Your task to perform on an android device: Search for "dell xps" on target.com, select the first entry, and add it to the cart. Image 0: 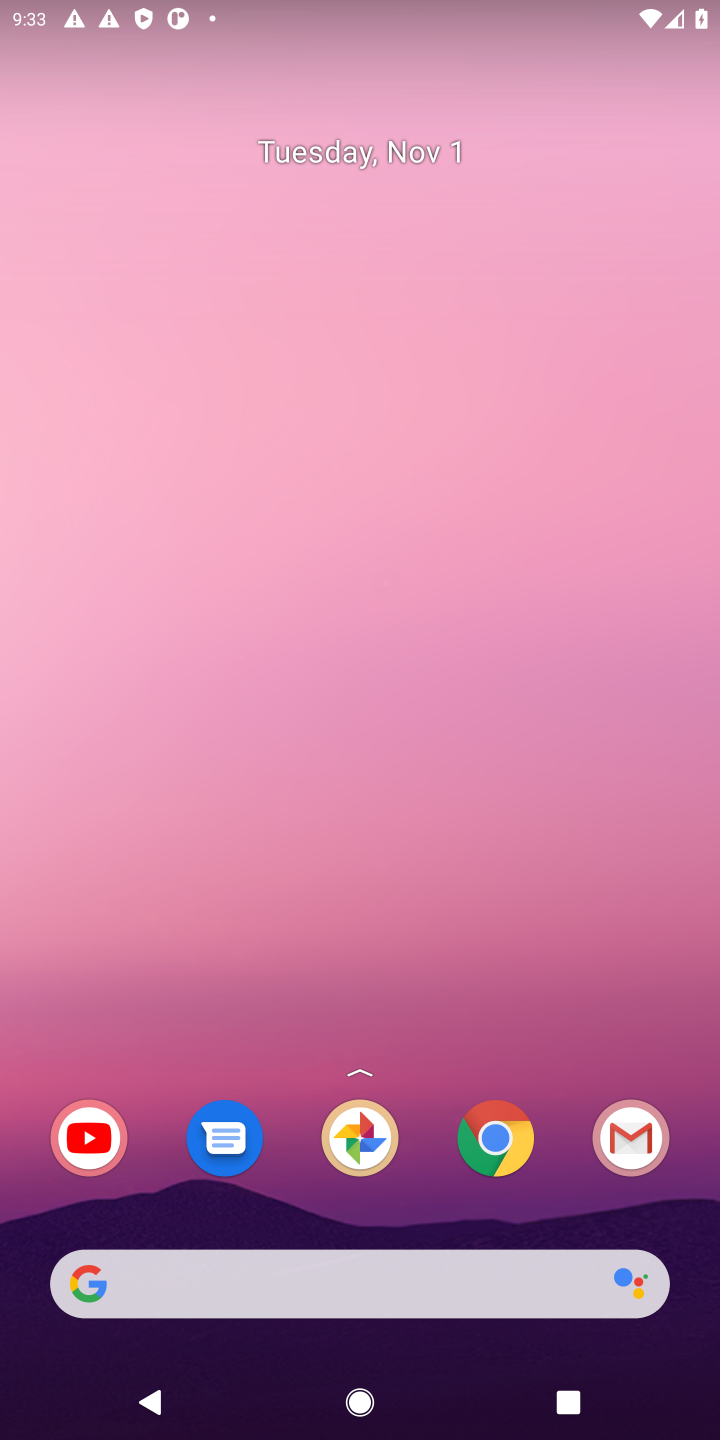
Step 0: click (484, 1133)
Your task to perform on an android device: Search for "dell xps" on target.com, select the first entry, and add it to the cart. Image 1: 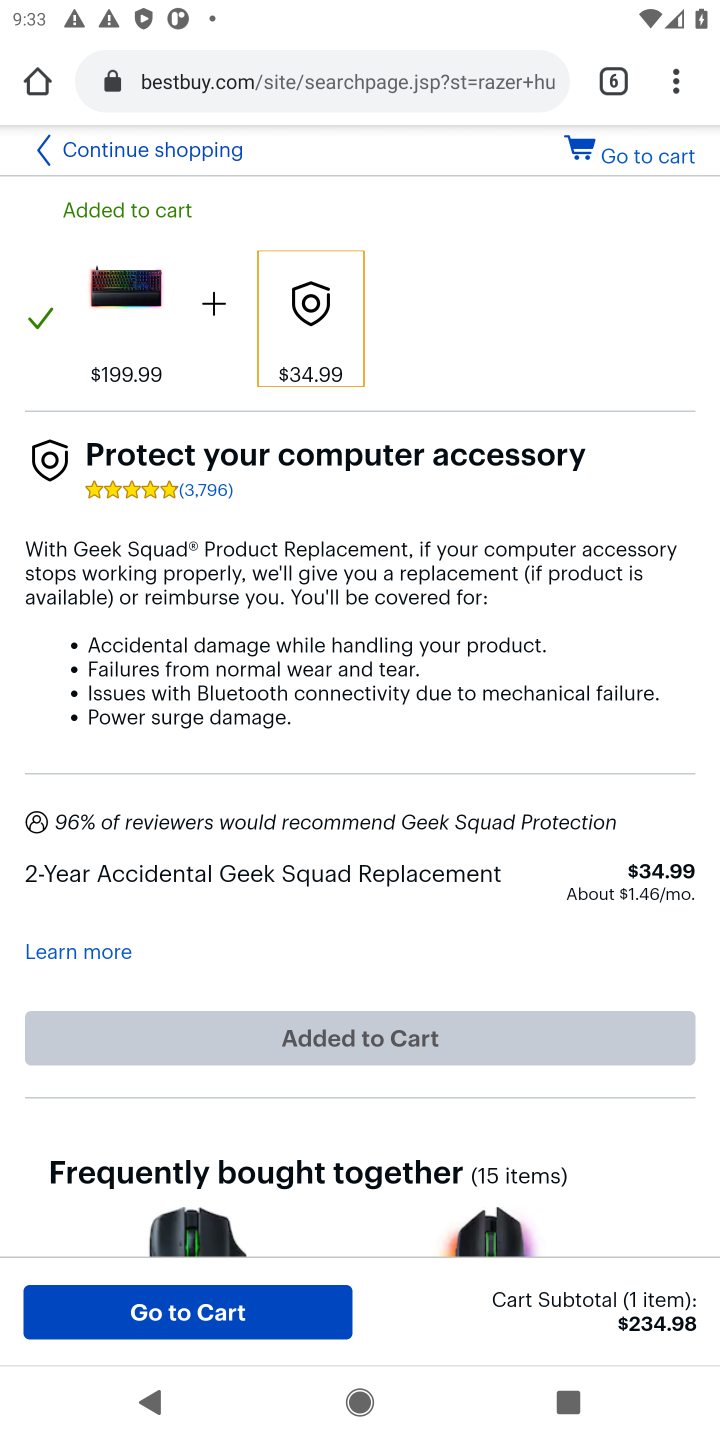
Step 1: click (676, 92)
Your task to perform on an android device: Search for "dell xps" on target.com, select the first entry, and add it to the cart. Image 2: 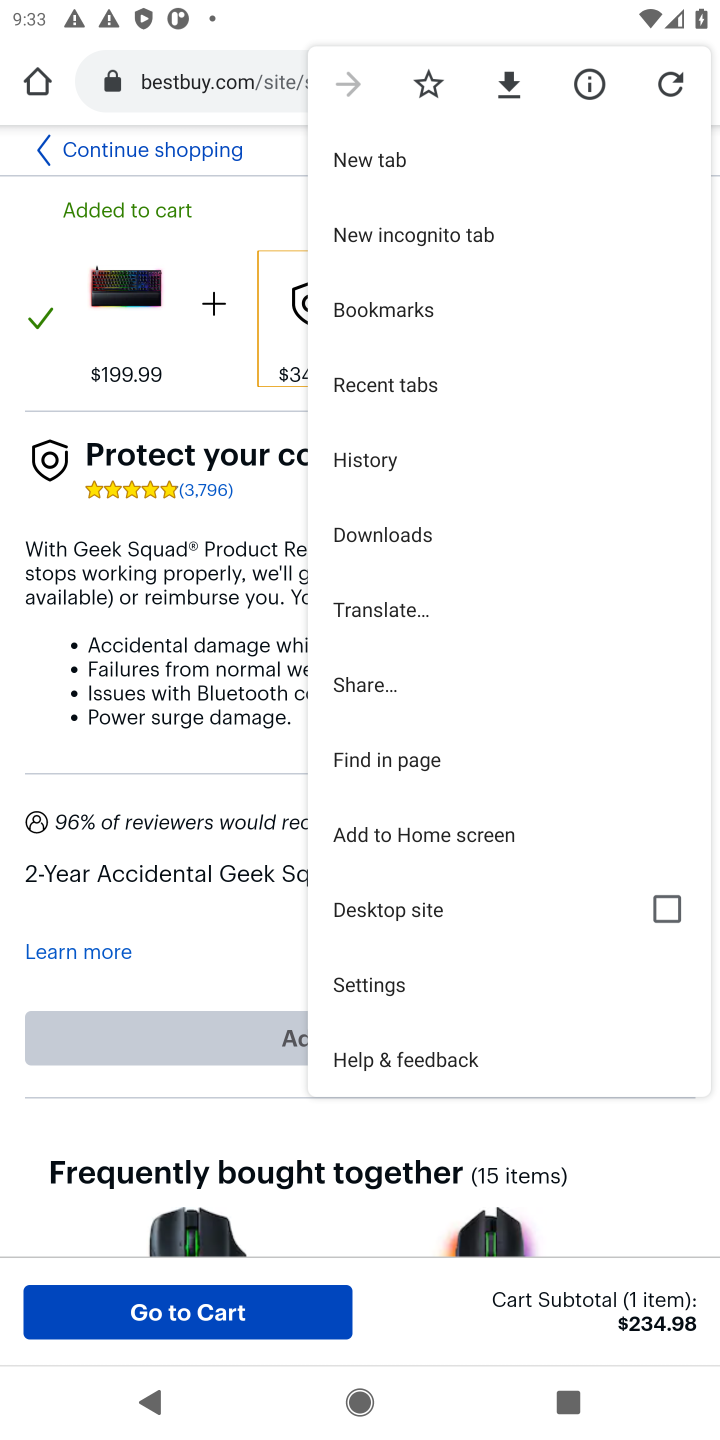
Step 2: click (378, 154)
Your task to perform on an android device: Search for "dell xps" on target.com, select the first entry, and add it to the cart. Image 3: 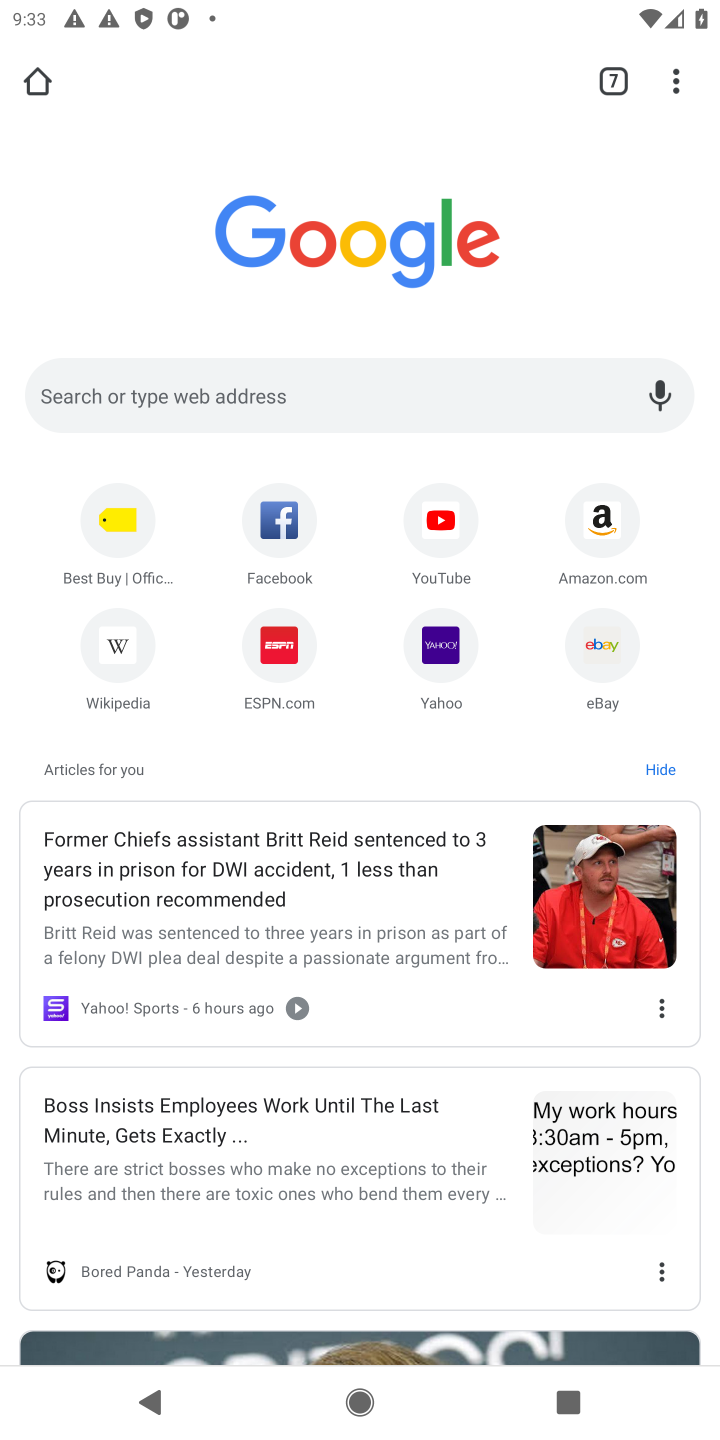
Step 3: click (470, 391)
Your task to perform on an android device: Search for "dell xps" on target.com, select the first entry, and add it to the cart. Image 4: 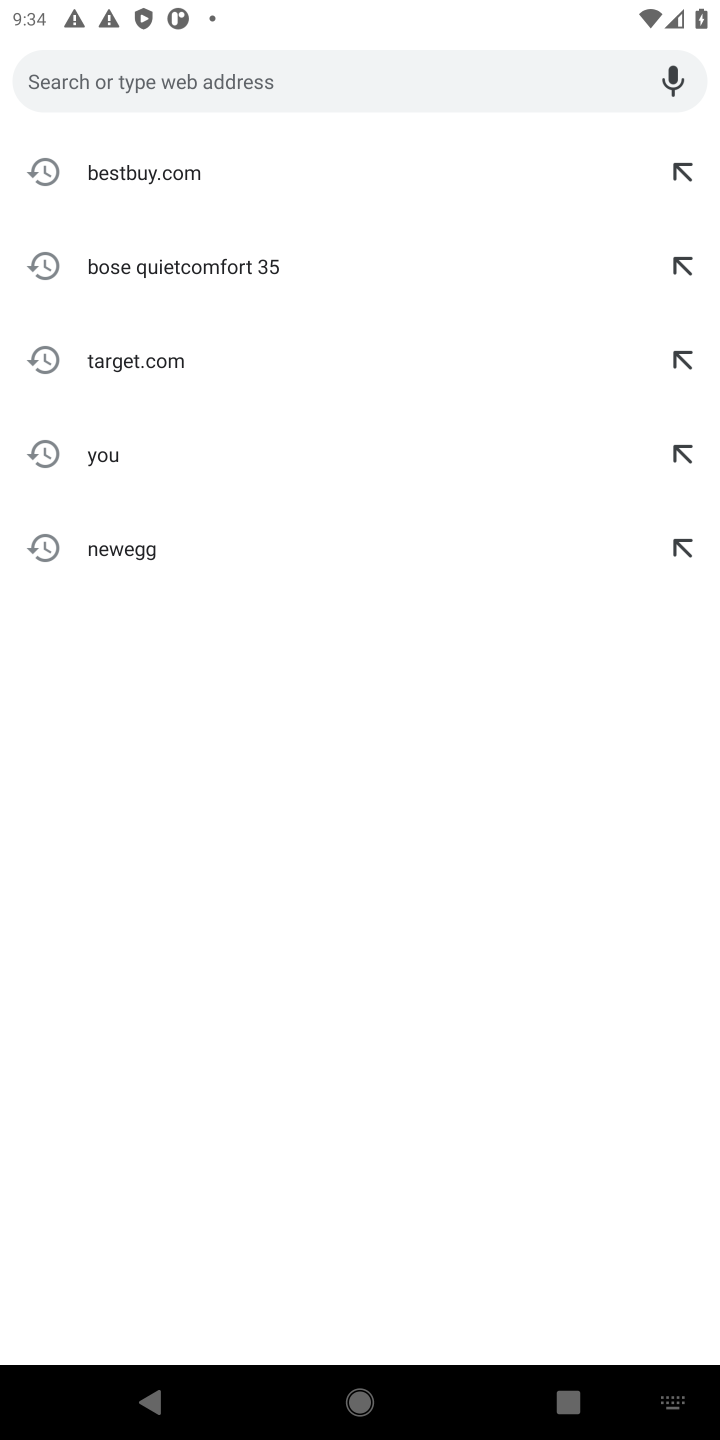
Step 4: type "dell xps""
Your task to perform on an android device: Search for "dell xps" on target.com, select the first entry, and add it to the cart. Image 5: 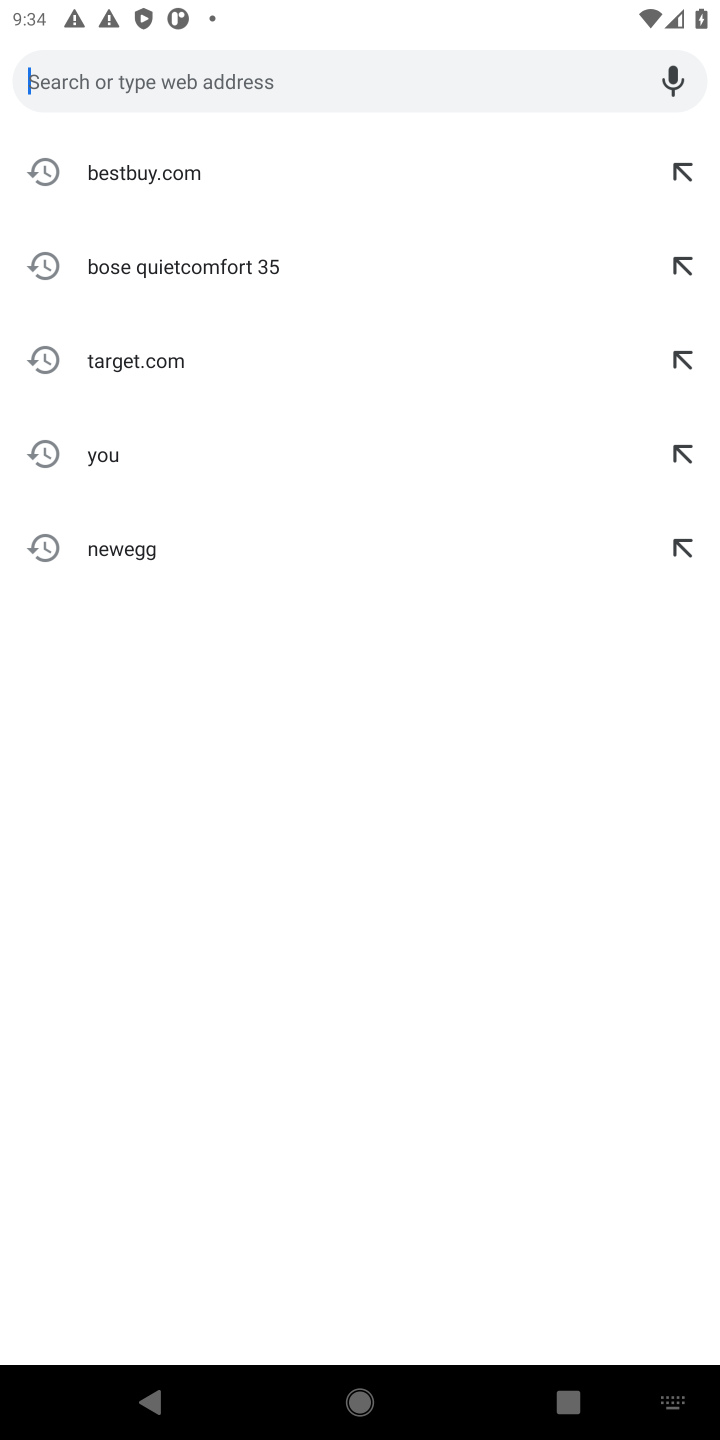
Step 5: type "dell xps"
Your task to perform on an android device: Search for "dell xps" on target.com, select the first entry, and add it to the cart. Image 6: 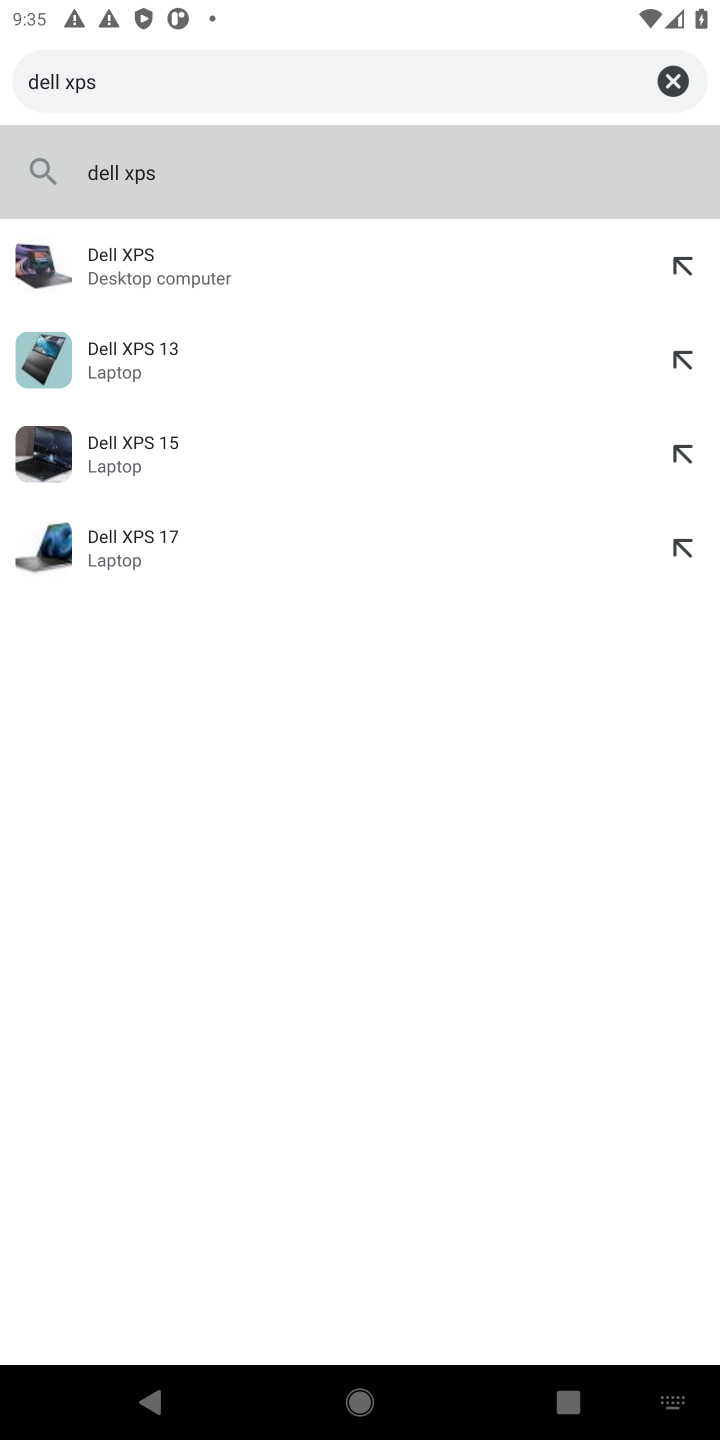
Step 6: click (658, 74)
Your task to perform on an android device: Search for "dell xps" on target.com, select the first entry, and add it to the cart. Image 7: 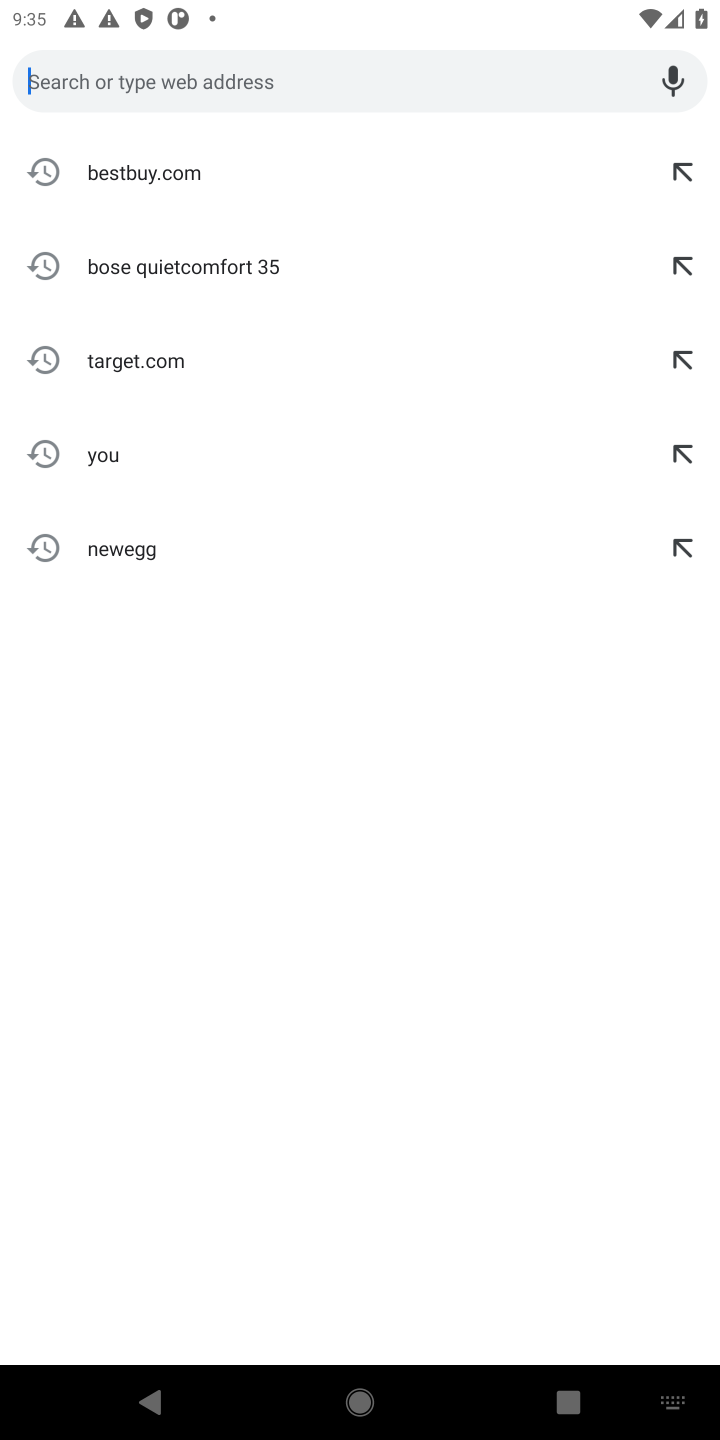
Step 7: type "target.com,"
Your task to perform on an android device: Search for "dell xps" on target.com, select the first entry, and add it to the cart. Image 8: 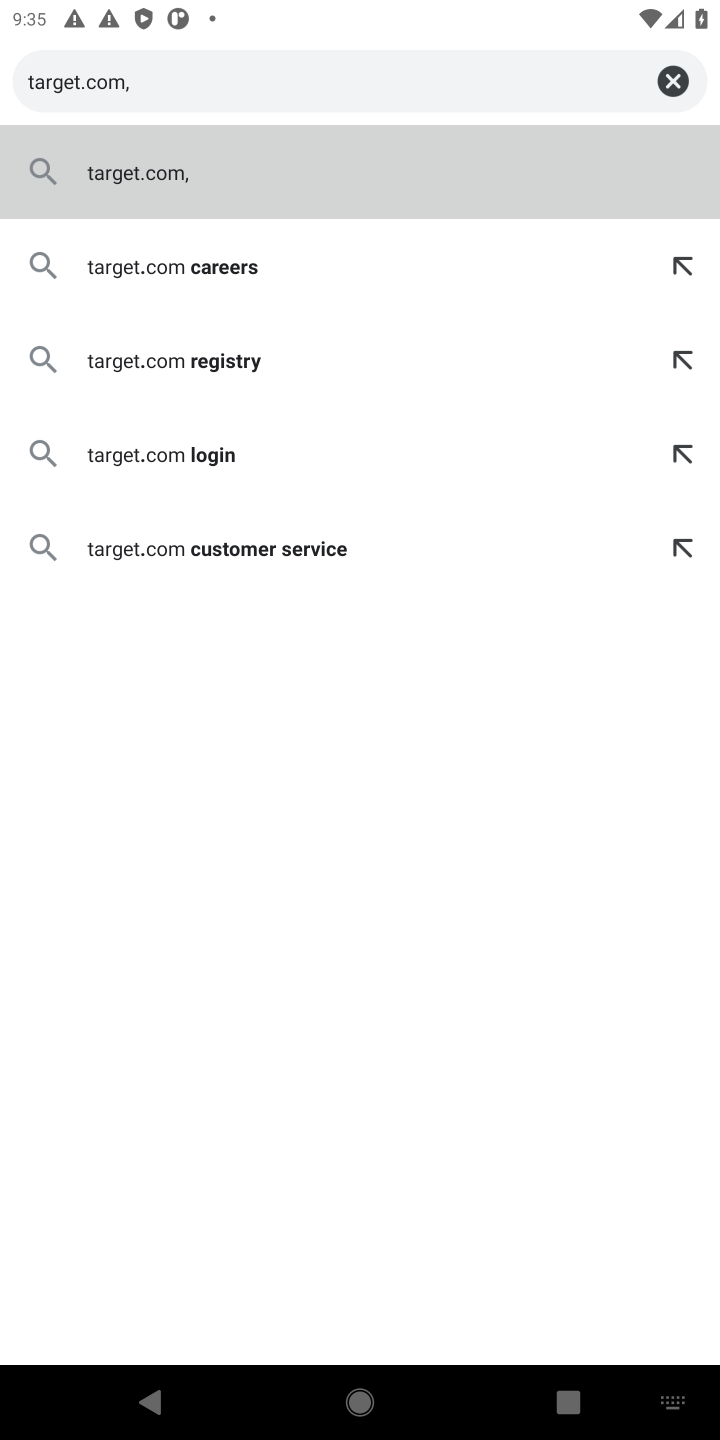
Step 8: type ""
Your task to perform on an android device: Search for "dell xps" on target.com, select the first entry, and add it to the cart. Image 9: 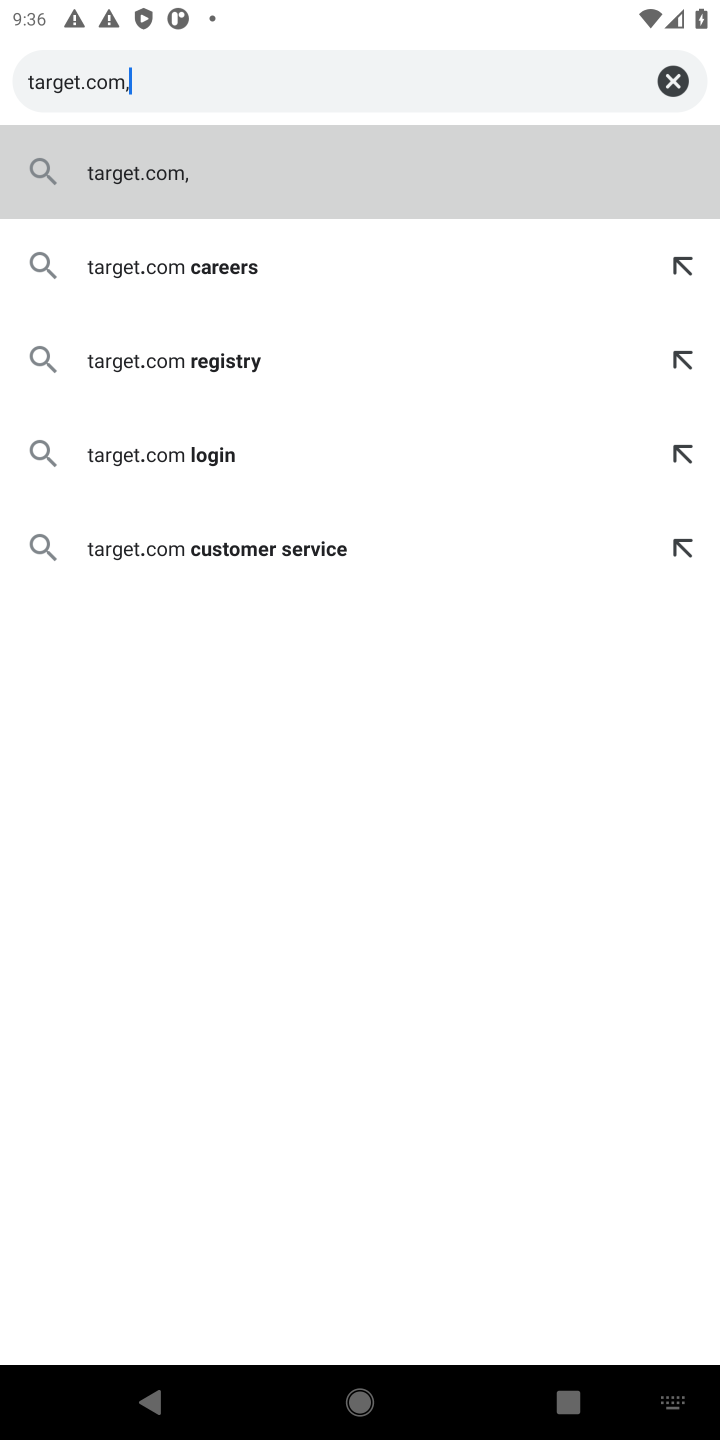
Step 9: click (137, 173)
Your task to perform on an android device: Search for "dell xps" on target.com, select the first entry, and add it to the cart. Image 10: 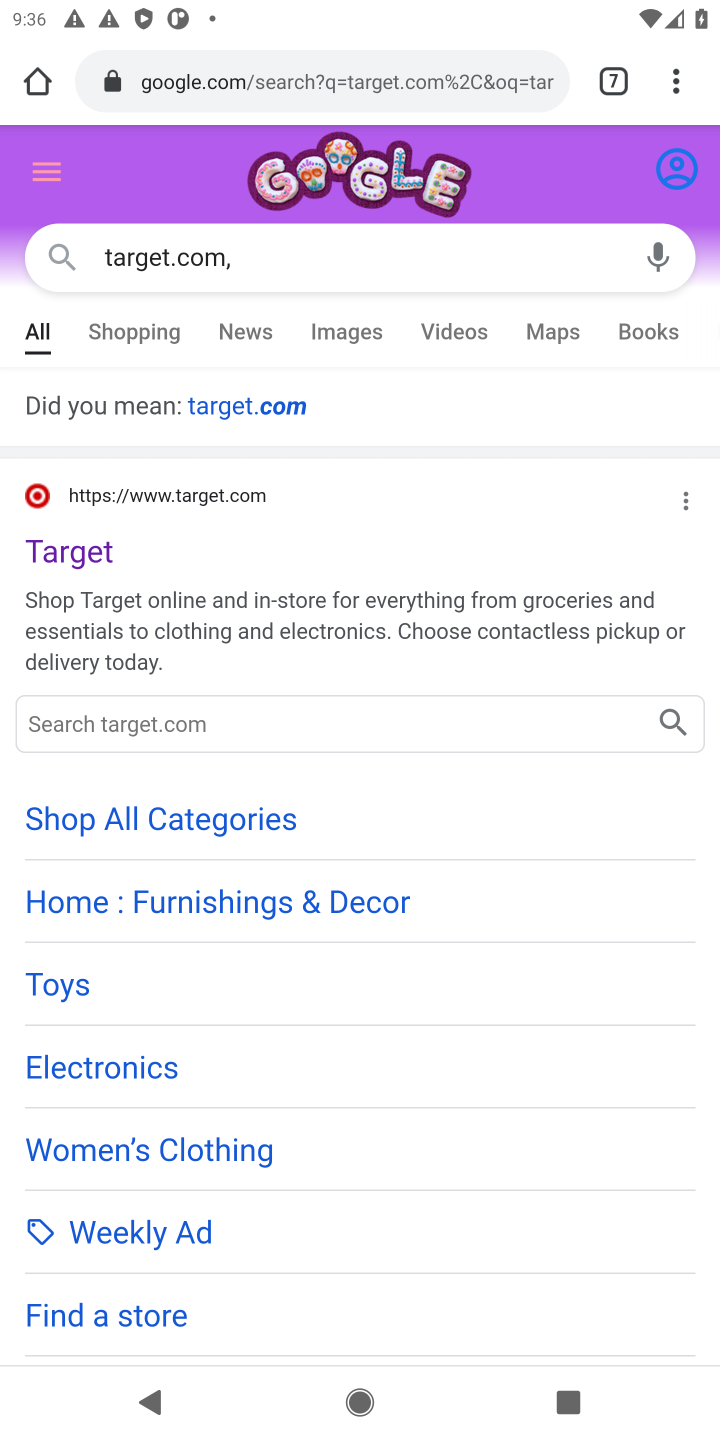
Step 10: click (67, 555)
Your task to perform on an android device: Search for "dell xps" on target.com, select the first entry, and add it to the cart. Image 11: 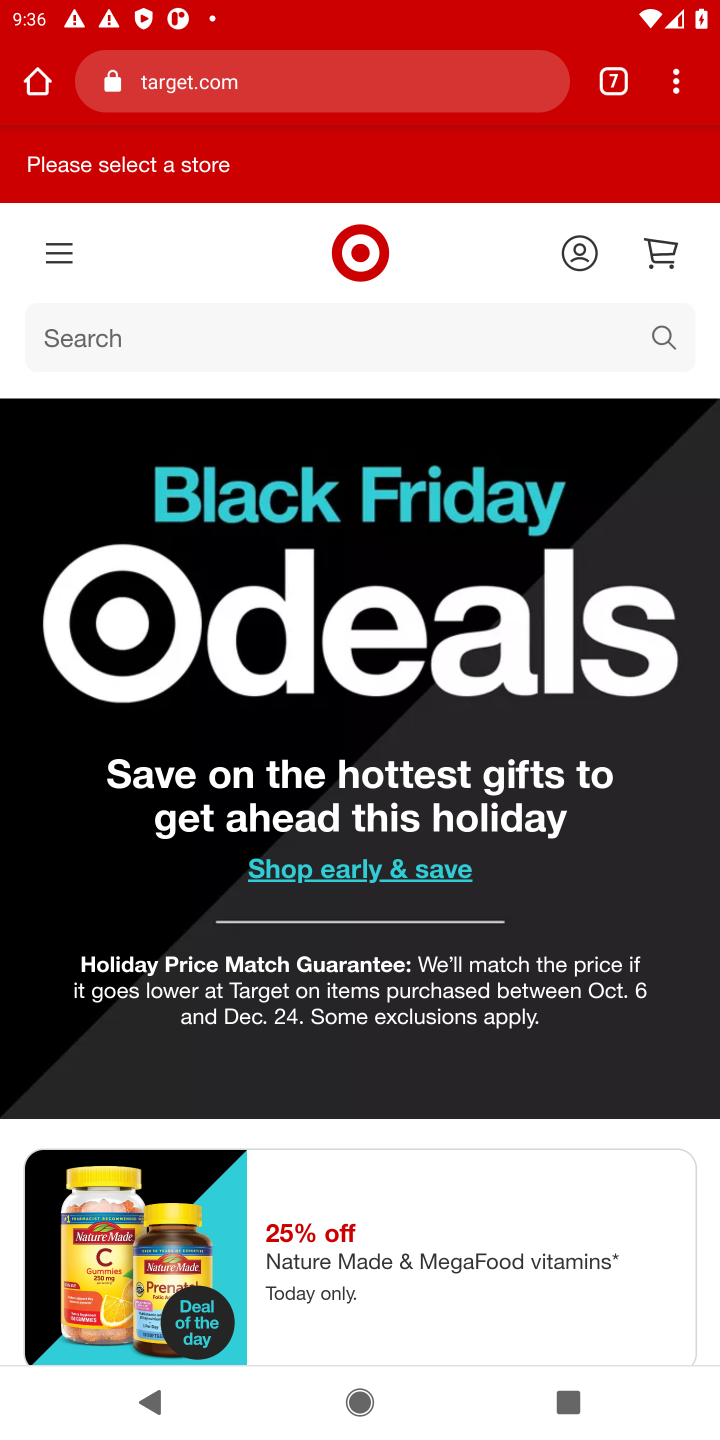
Step 11: click (238, 359)
Your task to perform on an android device: Search for "dell xps" on target.com, select the first entry, and add it to the cart. Image 12: 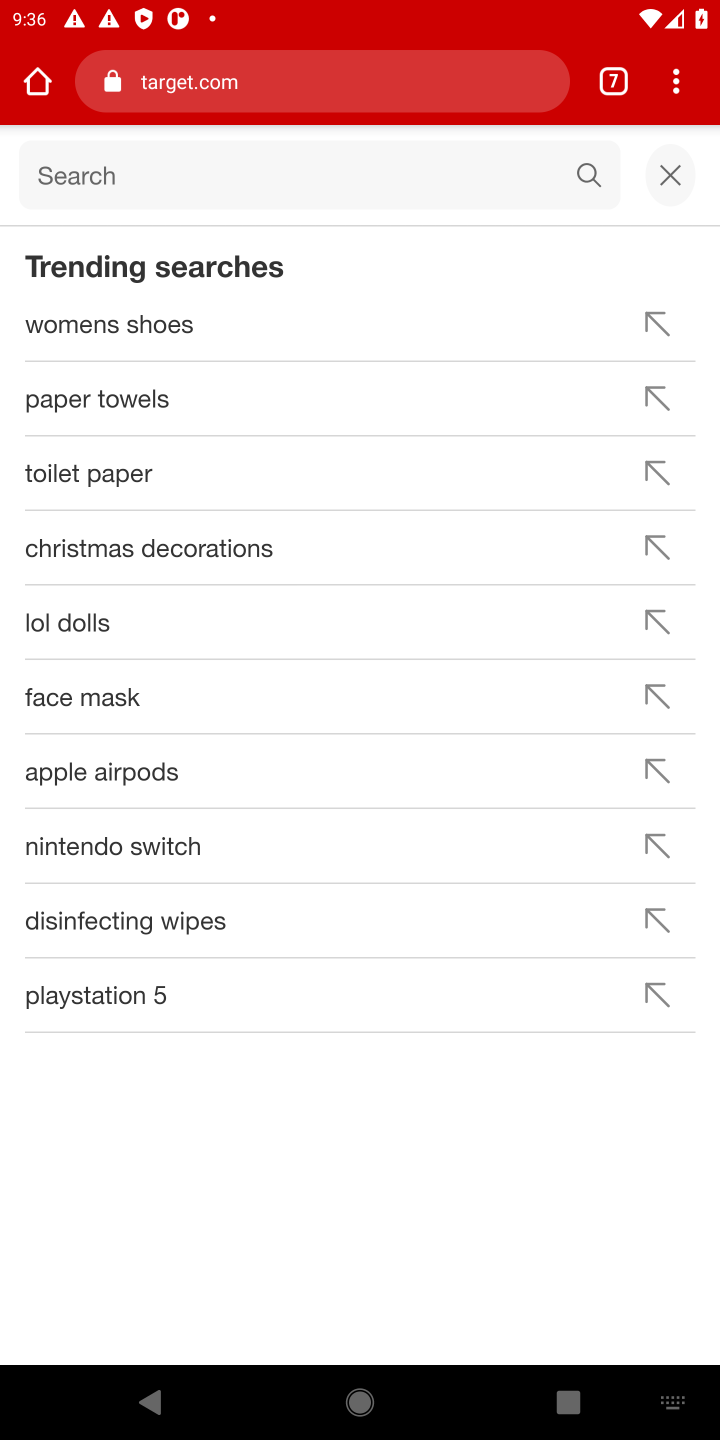
Step 12: type "dell xps"
Your task to perform on an android device: Search for "dell xps" on target.com, select the first entry, and add it to the cart. Image 13: 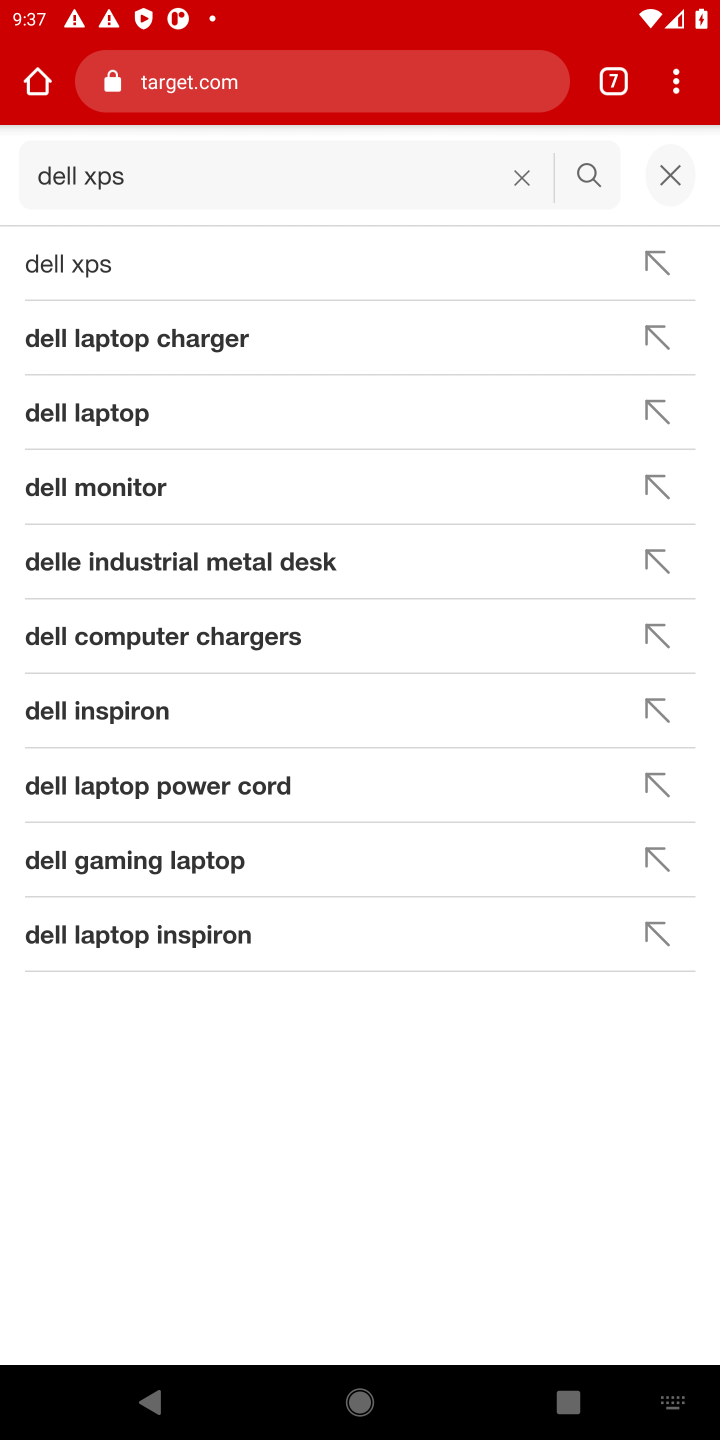
Step 13: click (93, 257)
Your task to perform on an android device: Search for "dell xps" on target.com, select the first entry, and add it to the cart. Image 14: 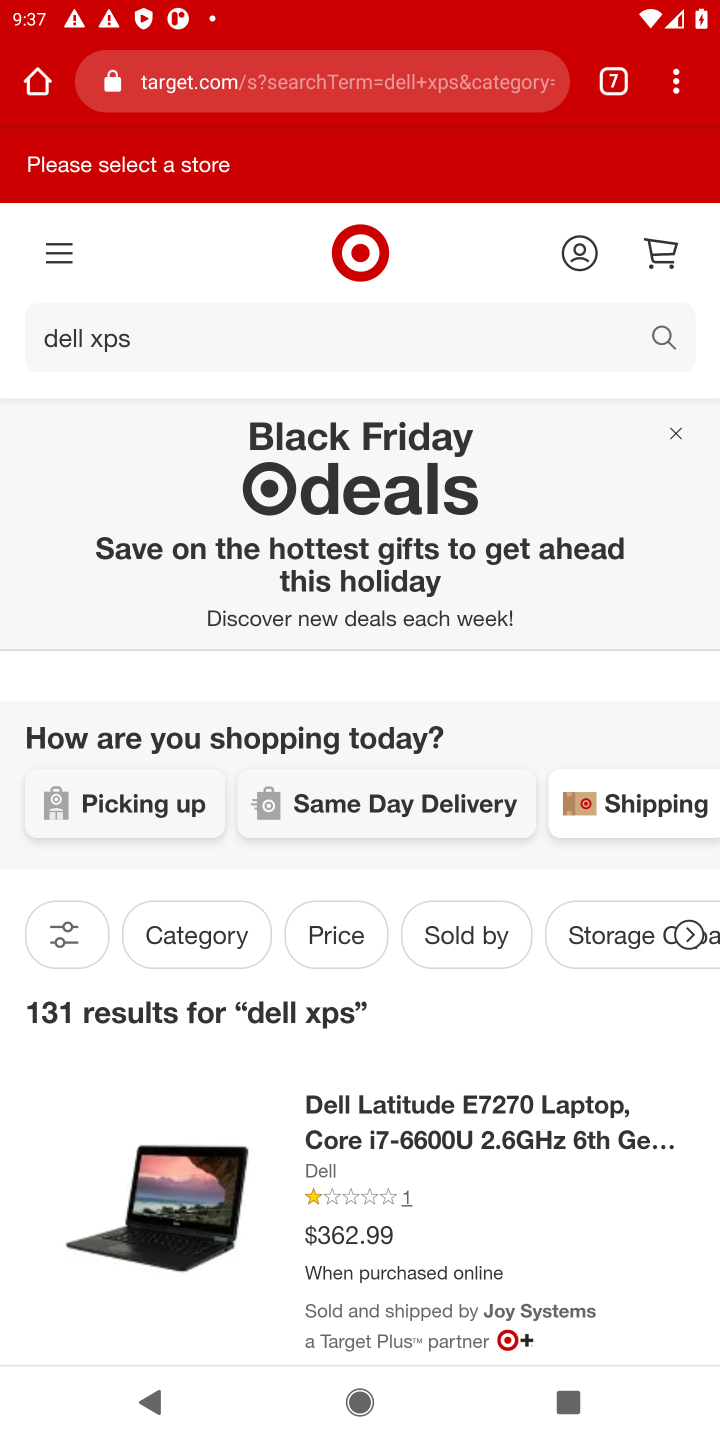
Step 14: click (398, 1137)
Your task to perform on an android device: Search for "dell xps" on target.com, select the first entry, and add it to the cart. Image 15: 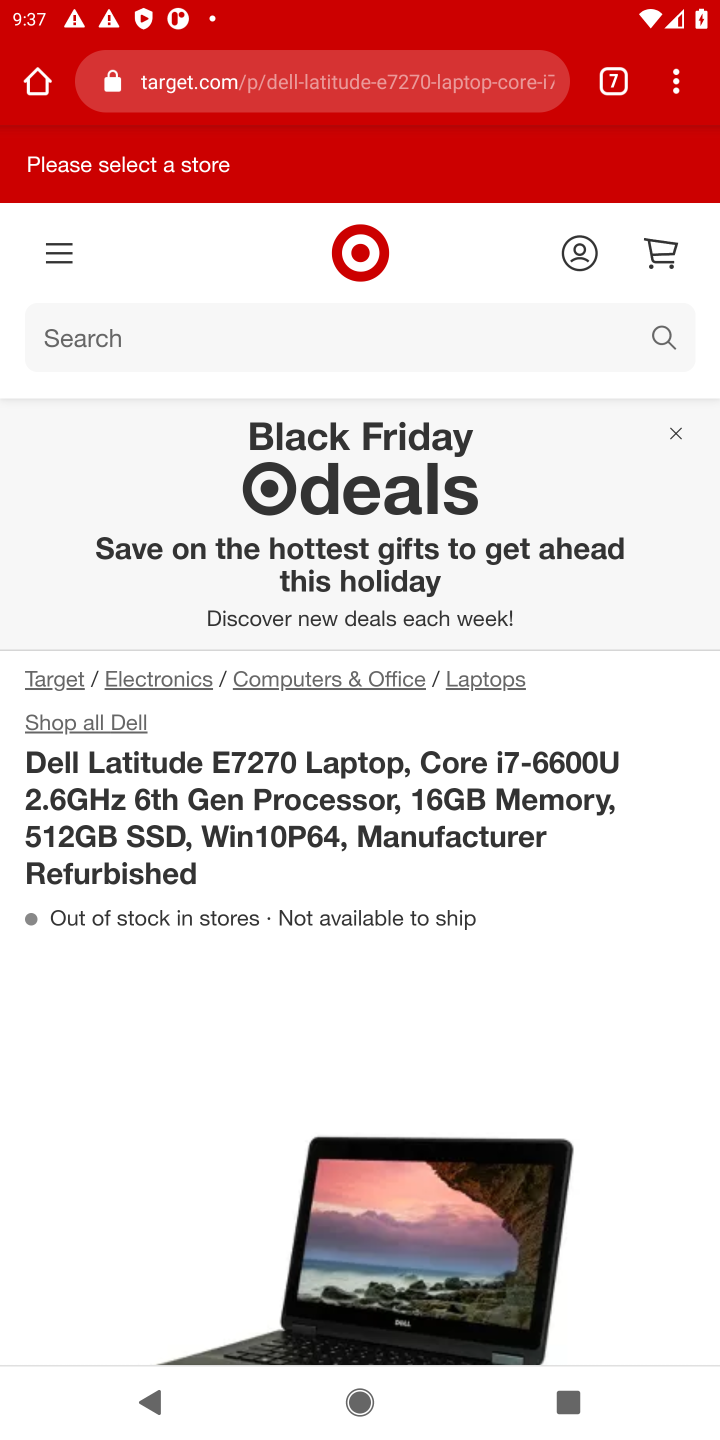
Step 15: drag from (355, 1262) to (339, 756)
Your task to perform on an android device: Search for "dell xps" on target.com, select the first entry, and add it to the cart. Image 16: 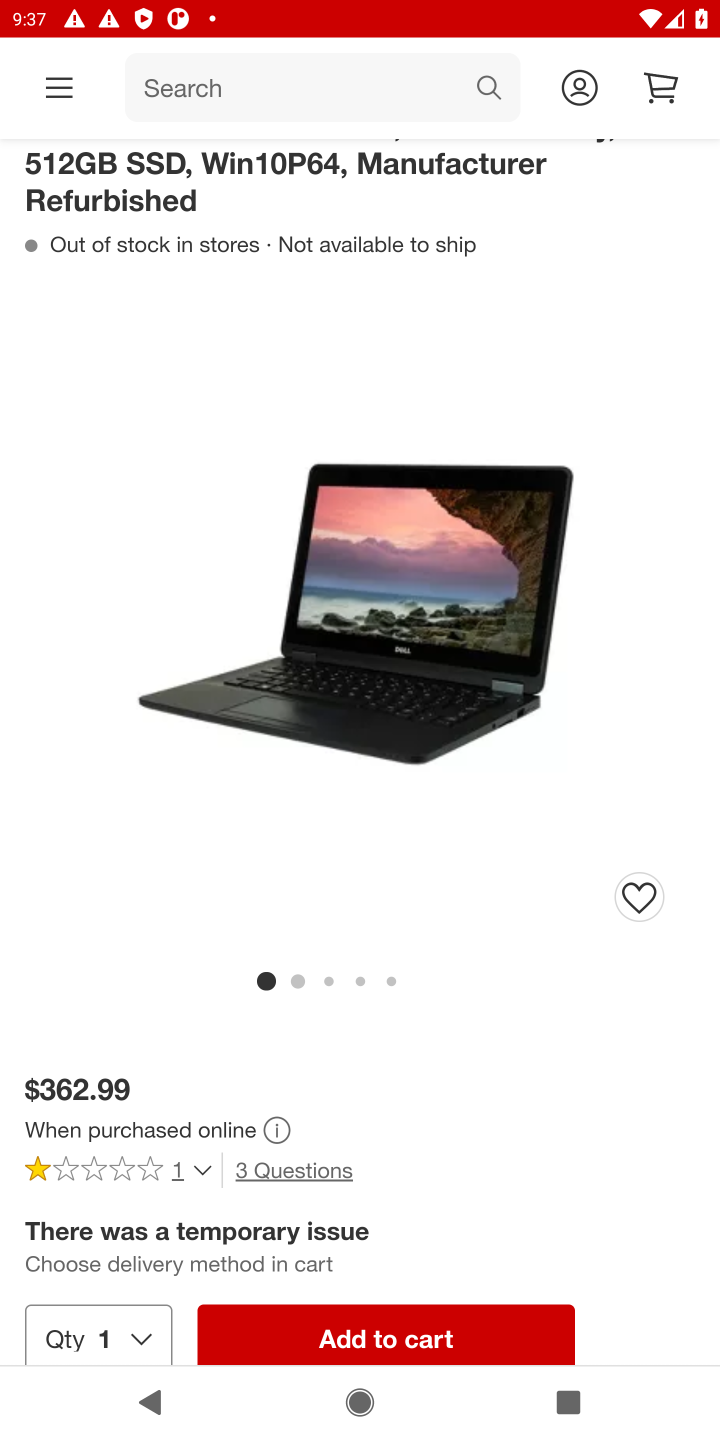
Step 16: drag from (396, 1214) to (387, 1033)
Your task to perform on an android device: Search for "dell xps" on target.com, select the first entry, and add it to the cart. Image 17: 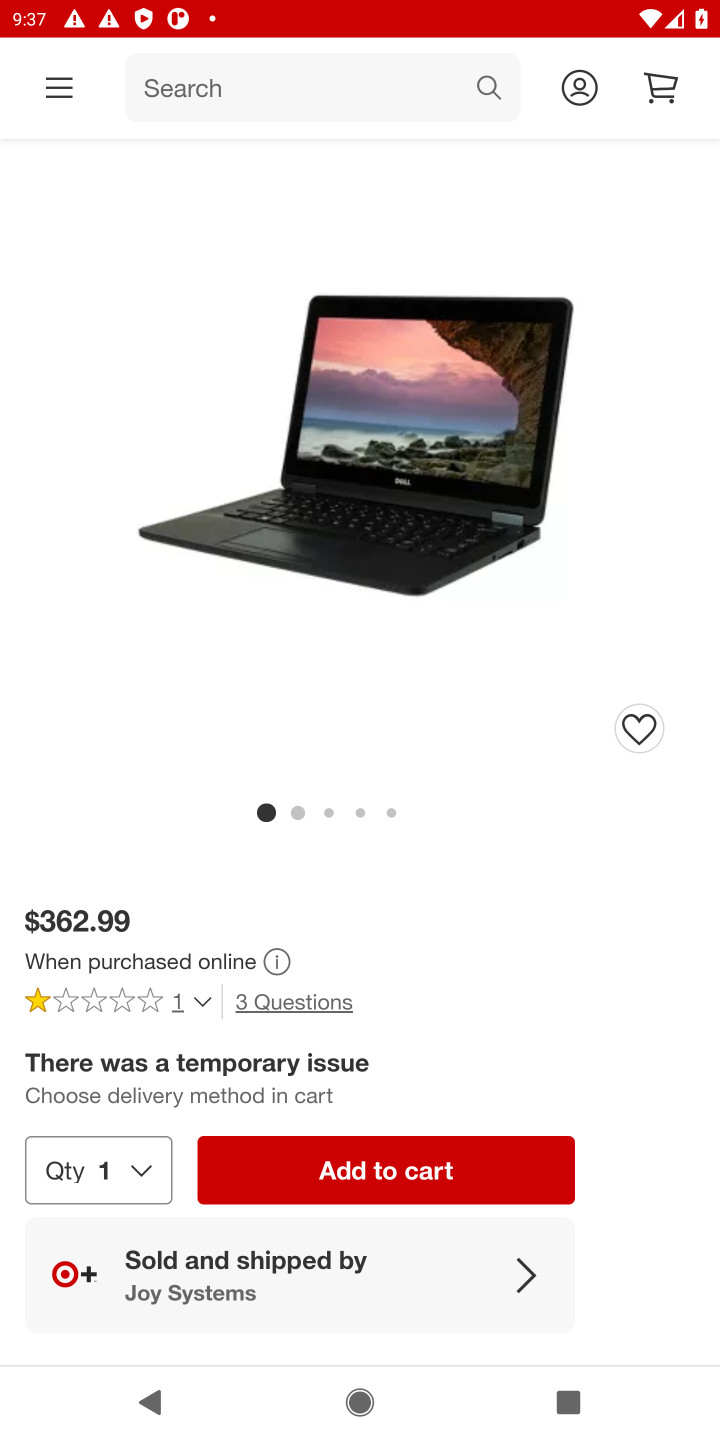
Step 17: click (381, 1177)
Your task to perform on an android device: Search for "dell xps" on target.com, select the first entry, and add it to the cart. Image 18: 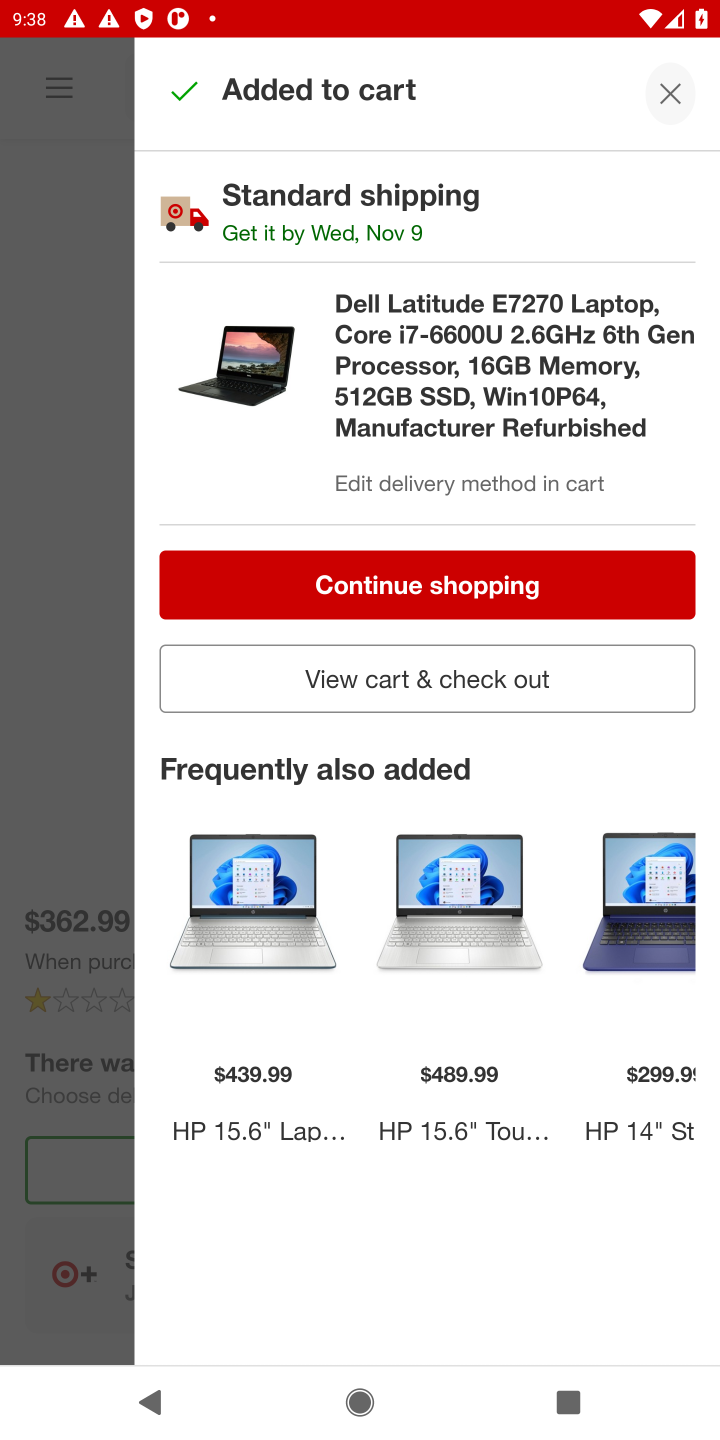
Step 18: task complete